Your task to perform on an android device: Open Android settings Image 0: 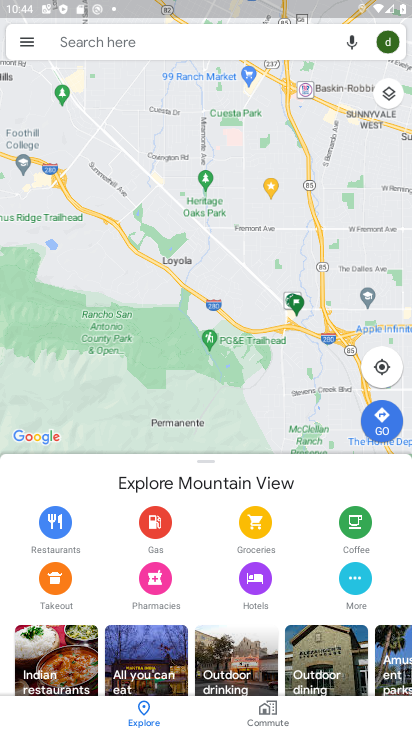
Step 0: press home button
Your task to perform on an android device: Open Android settings Image 1: 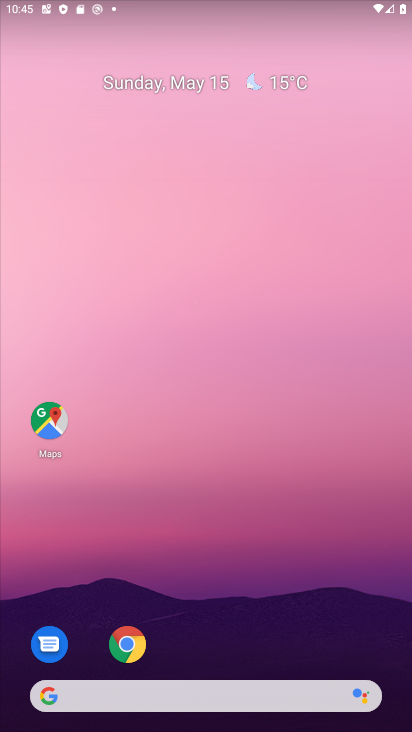
Step 1: drag from (152, 639) to (146, 232)
Your task to perform on an android device: Open Android settings Image 2: 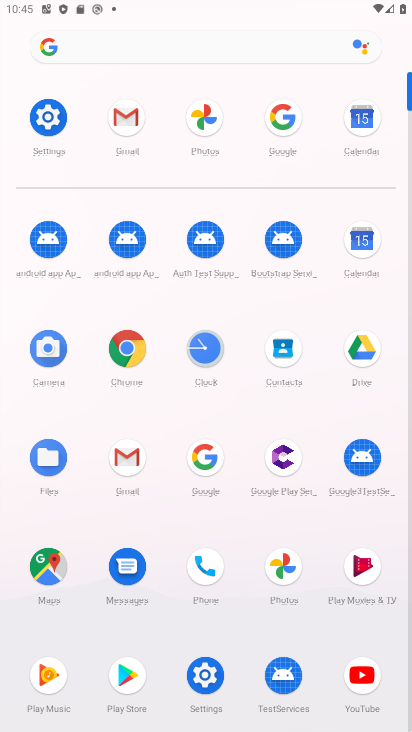
Step 2: click (201, 675)
Your task to perform on an android device: Open Android settings Image 3: 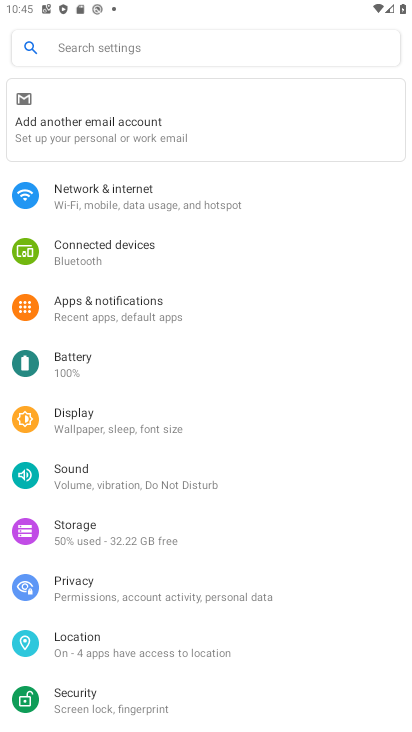
Step 3: task complete